Your task to perform on an android device: change your default location settings in chrome Image 0: 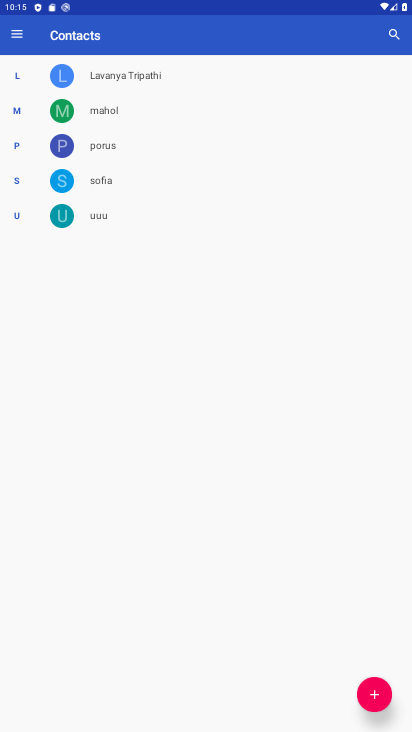
Step 0: press home button
Your task to perform on an android device: change your default location settings in chrome Image 1: 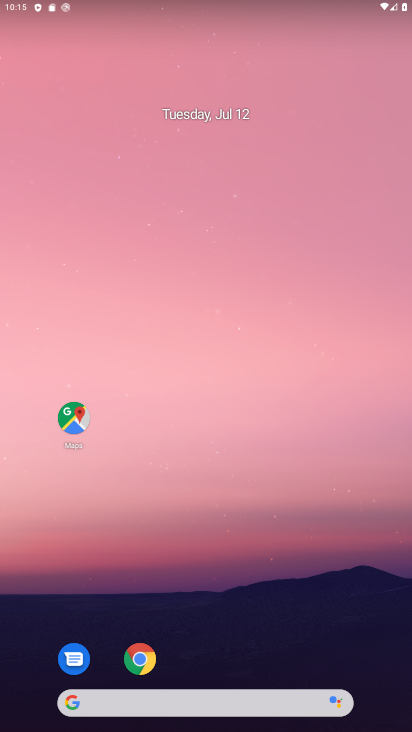
Step 1: drag from (212, 662) to (135, 650)
Your task to perform on an android device: change your default location settings in chrome Image 2: 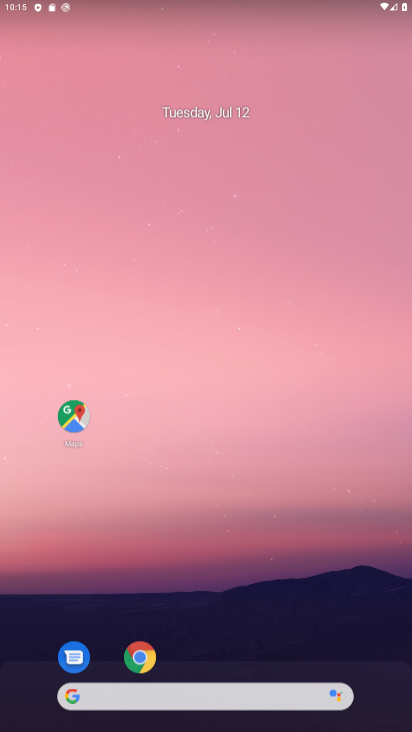
Step 2: click (135, 650)
Your task to perform on an android device: change your default location settings in chrome Image 3: 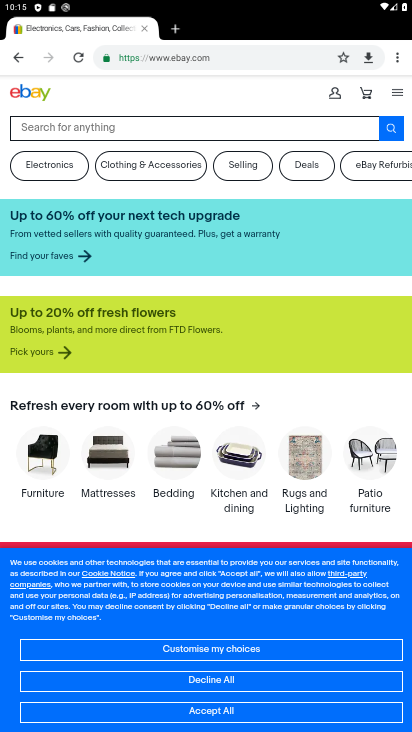
Step 3: click (398, 50)
Your task to perform on an android device: change your default location settings in chrome Image 4: 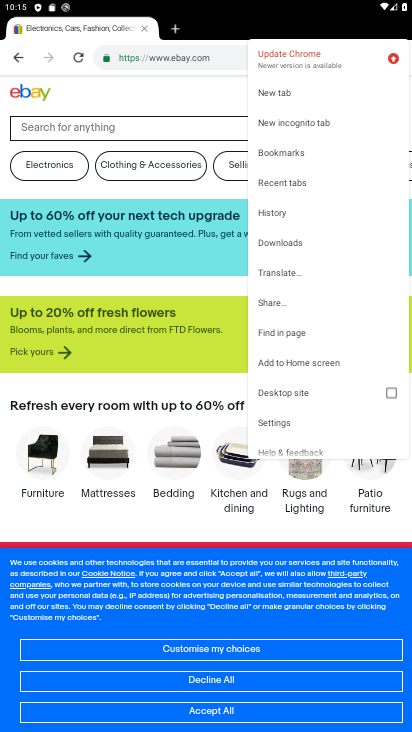
Step 4: click (274, 425)
Your task to perform on an android device: change your default location settings in chrome Image 5: 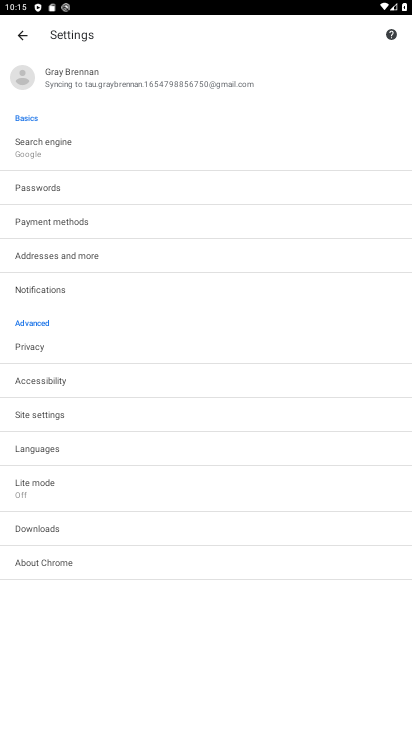
Step 5: click (51, 412)
Your task to perform on an android device: change your default location settings in chrome Image 6: 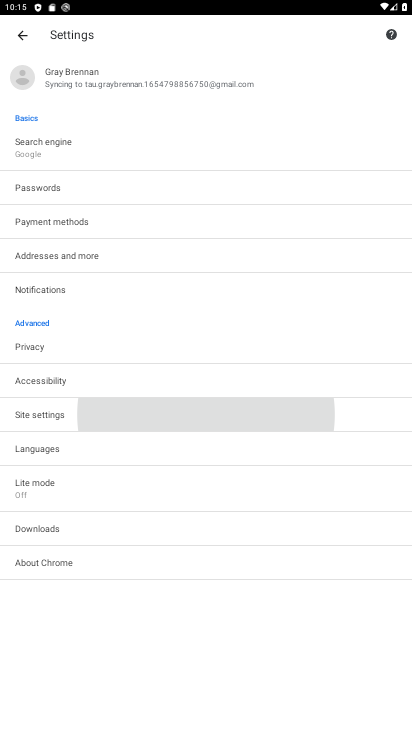
Step 6: click (51, 412)
Your task to perform on an android device: change your default location settings in chrome Image 7: 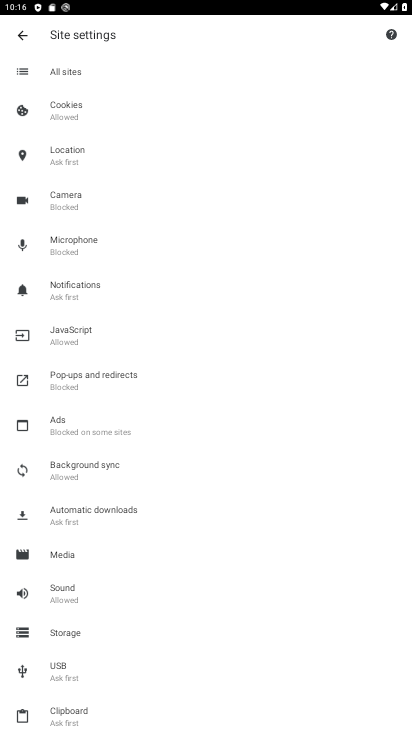
Step 7: click (69, 158)
Your task to perform on an android device: change your default location settings in chrome Image 8: 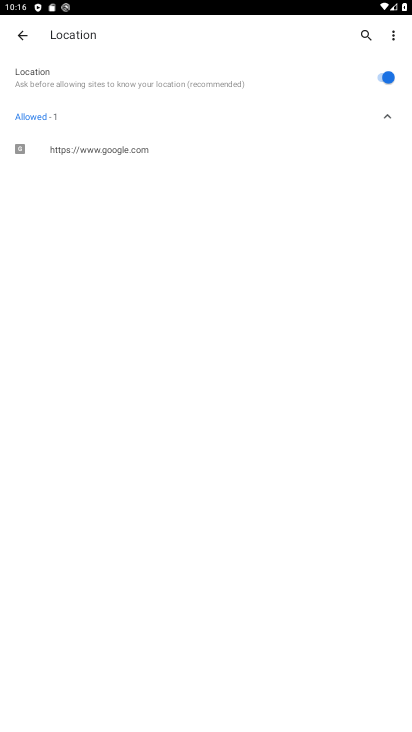
Step 8: click (381, 74)
Your task to perform on an android device: change your default location settings in chrome Image 9: 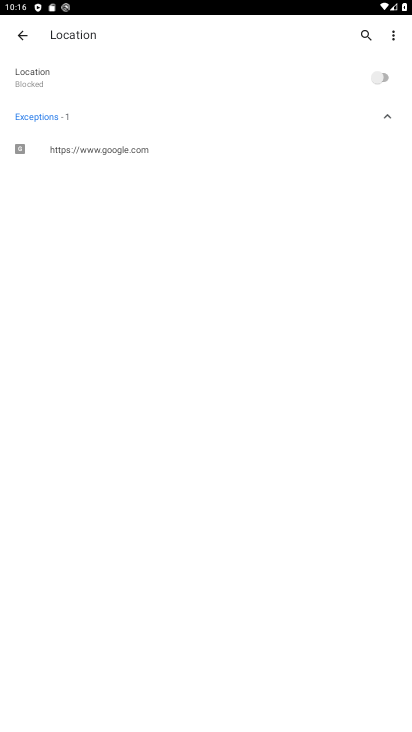
Step 9: task complete